Your task to perform on an android device: turn vacation reply on in the gmail app Image 0: 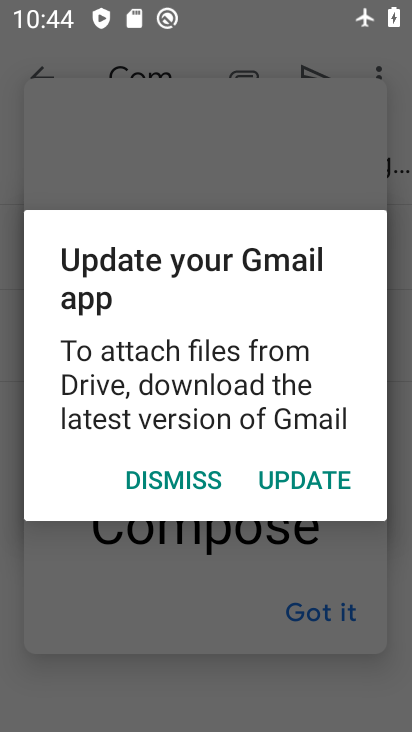
Step 0: press home button
Your task to perform on an android device: turn vacation reply on in the gmail app Image 1: 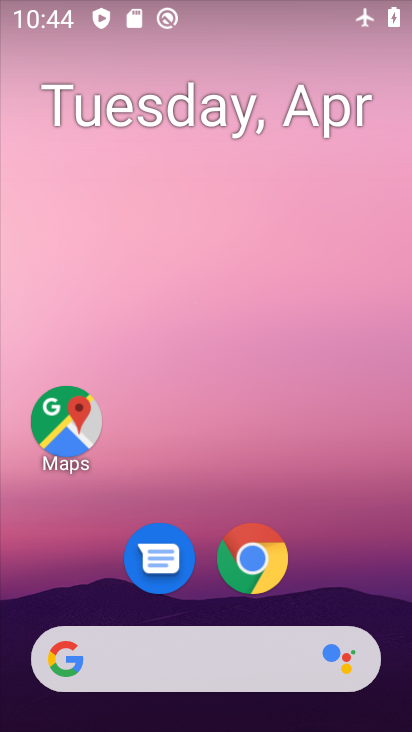
Step 1: drag from (380, 353) to (341, 107)
Your task to perform on an android device: turn vacation reply on in the gmail app Image 2: 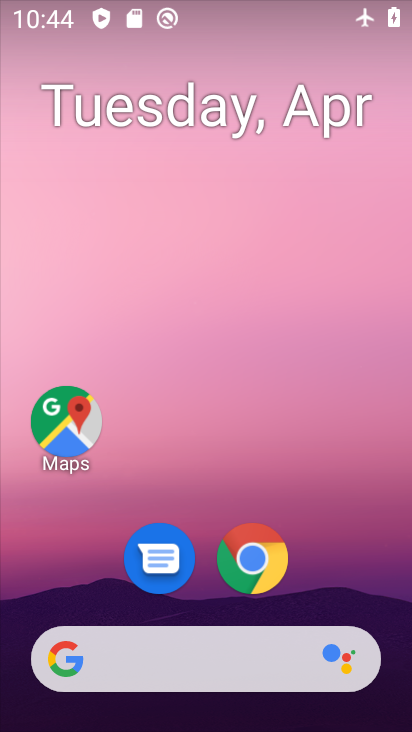
Step 2: drag from (360, 164) to (352, 60)
Your task to perform on an android device: turn vacation reply on in the gmail app Image 3: 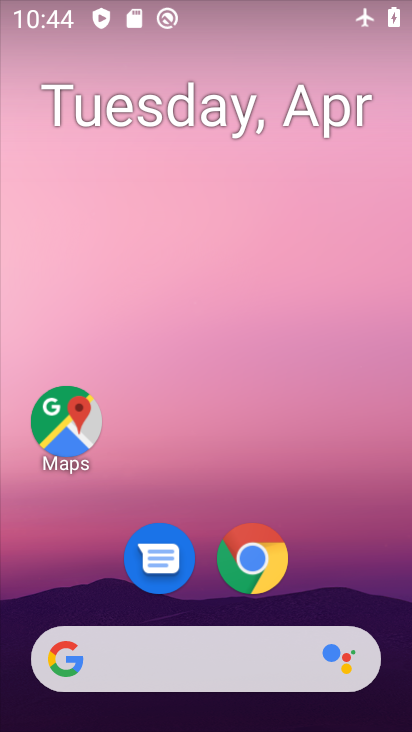
Step 3: drag from (356, 558) to (357, 67)
Your task to perform on an android device: turn vacation reply on in the gmail app Image 4: 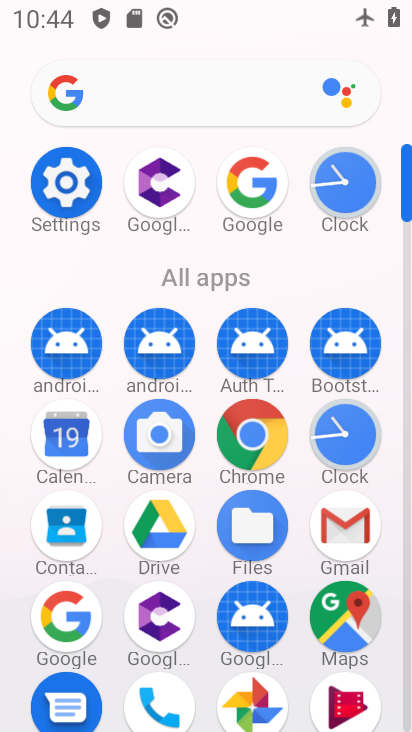
Step 4: click (348, 534)
Your task to perform on an android device: turn vacation reply on in the gmail app Image 5: 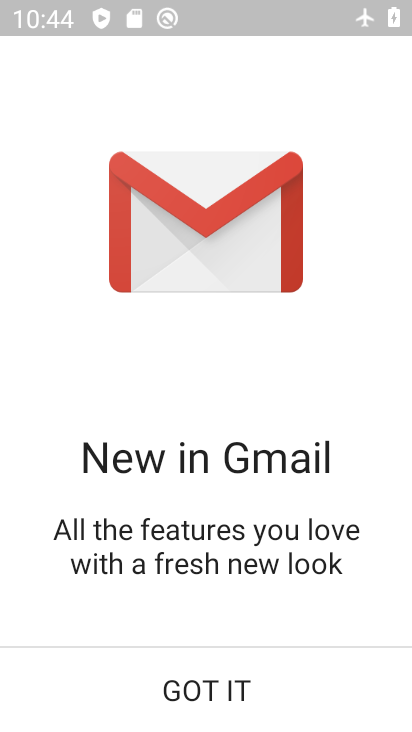
Step 5: click (207, 691)
Your task to perform on an android device: turn vacation reply on in the gmail app Image 6: 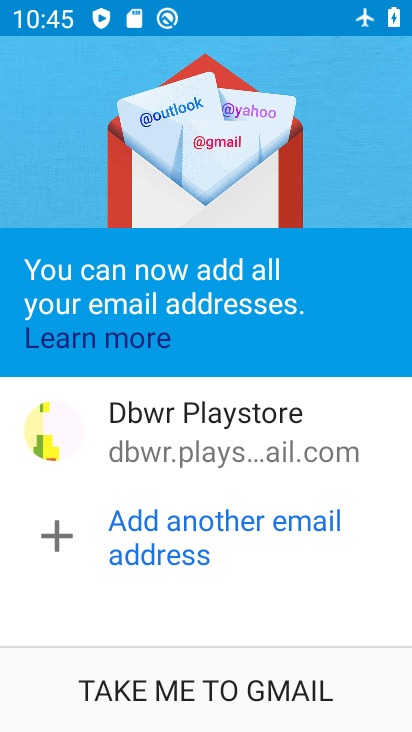
Step 6: click (260, 683)
Your task to perform on an android device: turn vacation reply on in the gmail app Image 7: 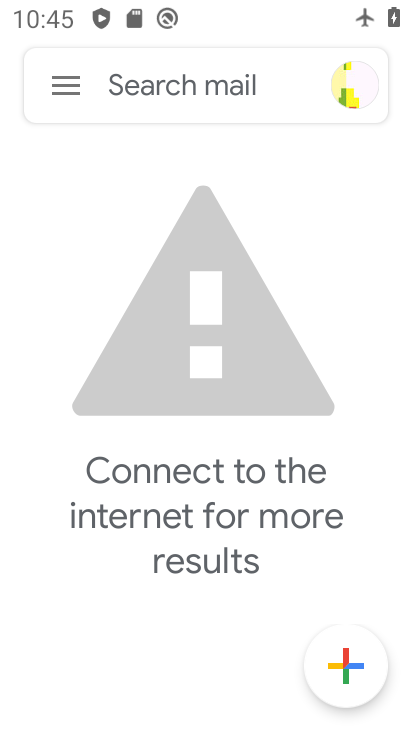
Step 7: click (64, 95)
Your task to perform on an android device: turn vacation reply on in the gmail app Image 8: 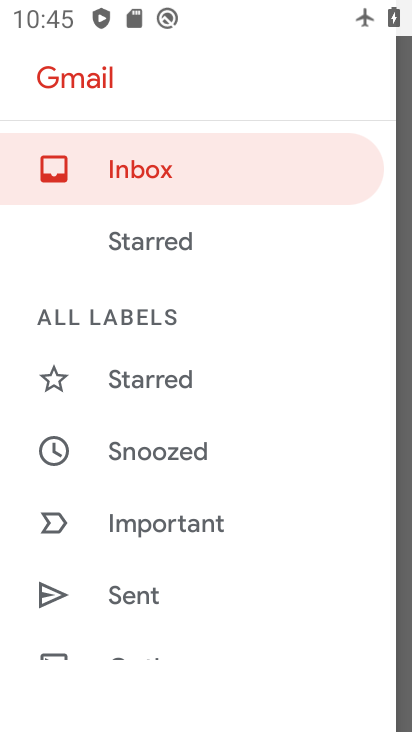
Step 8: drag from (273, 595) to (303, 178)
Your task to perform on an android device: turn vacation reply on in the gmail app Image 9: 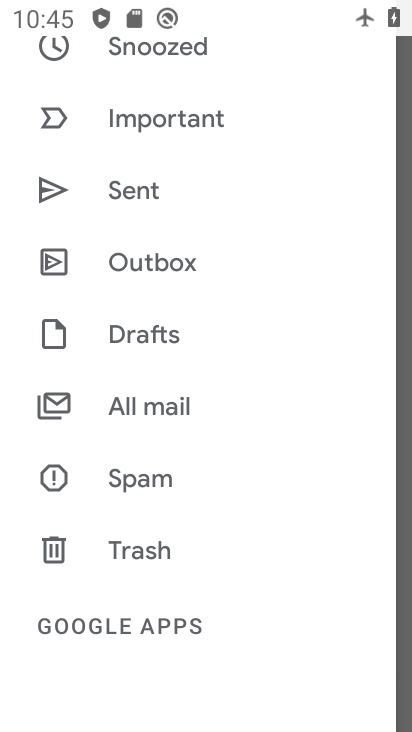
Step 9: drag from (273, 582) to (280, 186)
Your task to perform on an android device: turn vacation reply on in the gmail app Image 10: 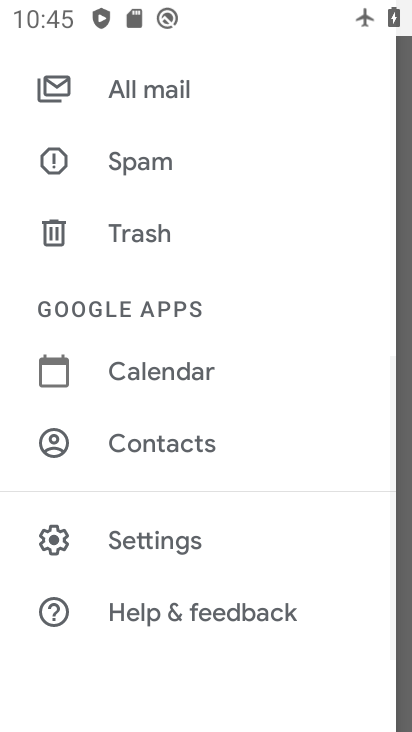
Step 10: click (154, 556)
Your task to perform on an android device: turn vacation reply on in the gmail app Image 11: 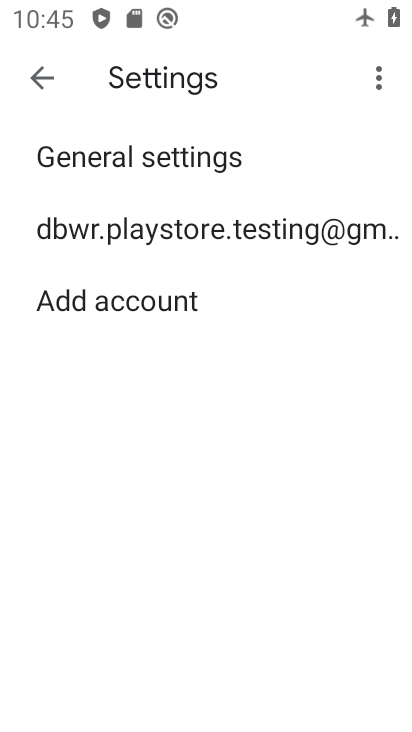
Step 11: click (263, 224)
Your task to perform on an android device: turn vacation reply on in the gmail app Image 12: 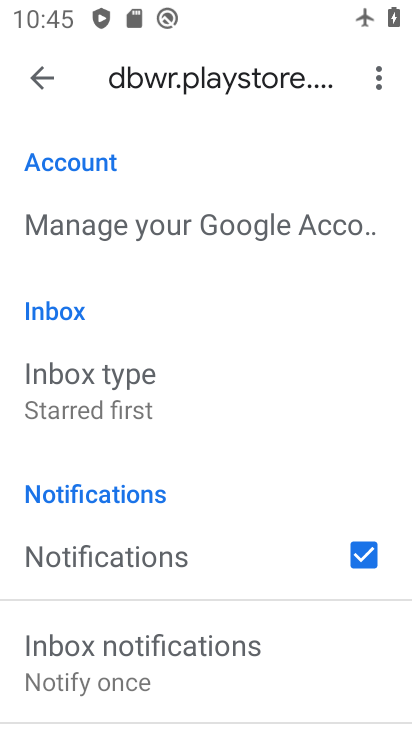
Step 12: drag from (234, 586) to (256, 185)
Your task to perform on an android device: turn vacation reply on in the gmail app Image 13: 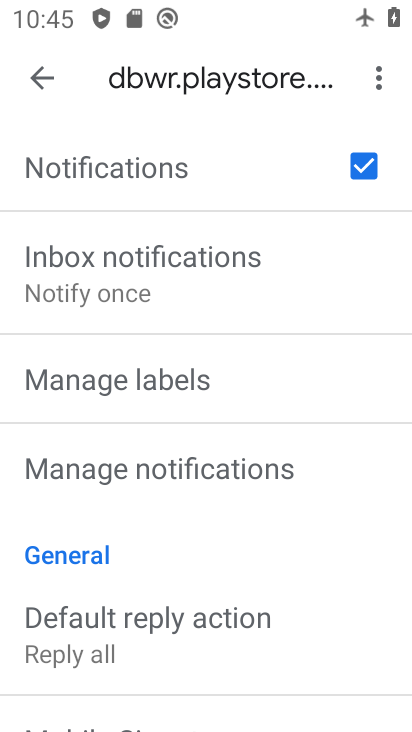
Step 13: drag from (296, 666) to (308, 239)
Your task to perform on an android device: turn vacation reply on in the gmail app Image 14: 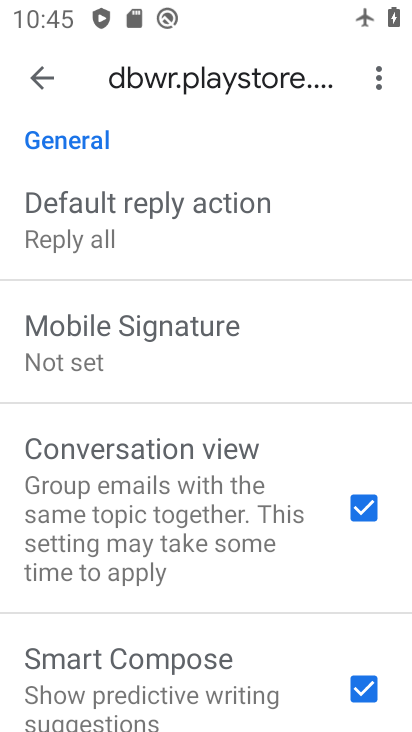
Step 14: drag from (274, 584) to (317, 248)
Your task to perform on an android device: turn vacation reply on in the gmail app Image 15: 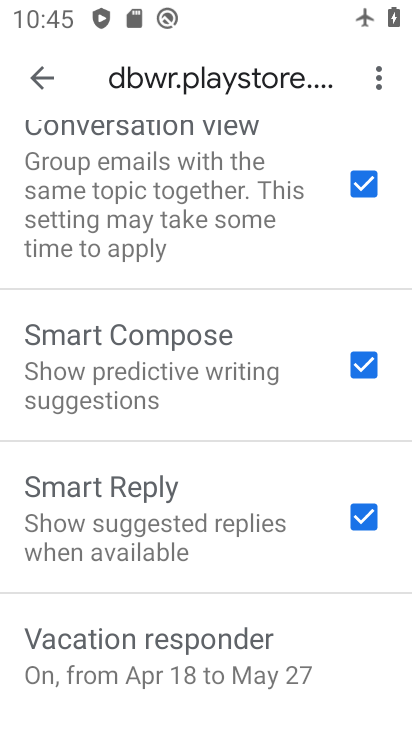
Step 15: click (169, 651)
Your task to perform on an android device: turn vacation reply on in the gmail app Image 16: 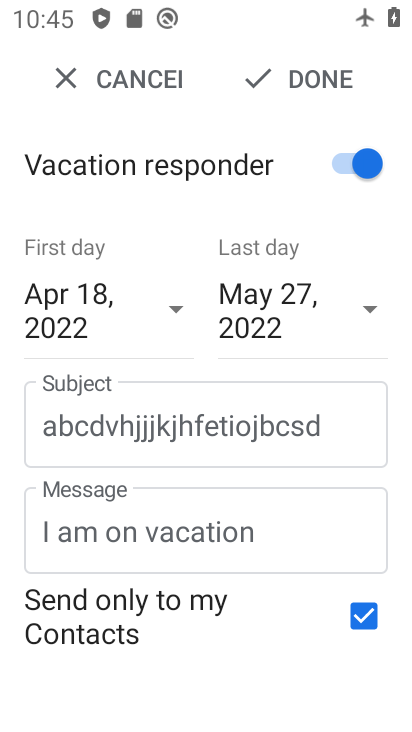
Step 16: task complete